Your task to perform on an android device: toggle airplane mode Image 0: 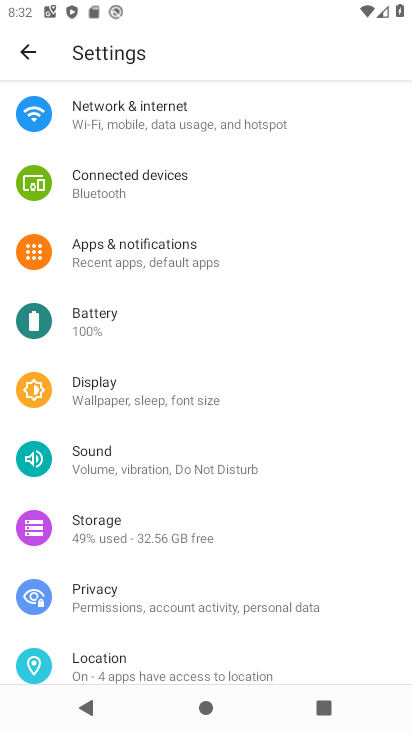
Step 0: click (149, 114)
Your task to perform on an android device: toggle airplane mode Image 1: 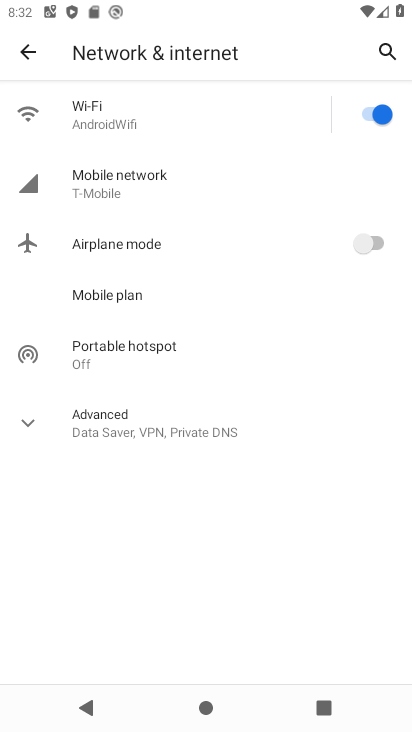
Step 1: click (396, 241)
Your task to perform on an android device: toggle airplane mode Image 2: 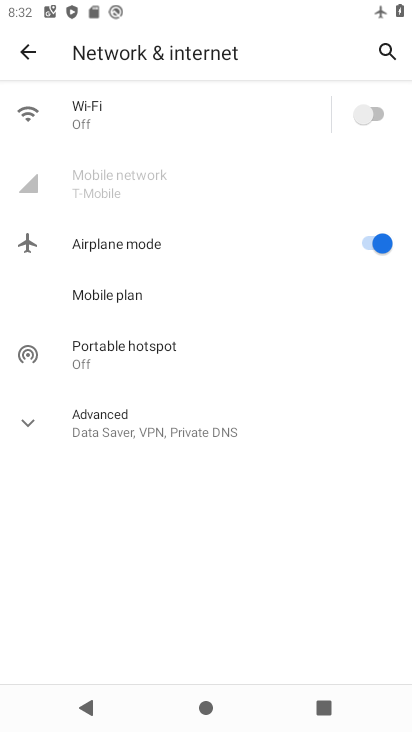
Step 2: task complete